Your task to perform on an android device: Set the phone to "Do not disturb". Image 0: 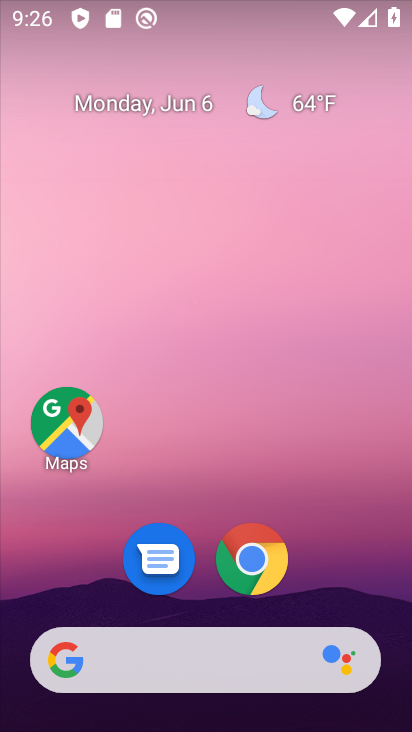
Step 0: drag from (246, 723) to (242, 68)
Your task to perform on an android device: Set the phone to "Do not disturb". Image 1: 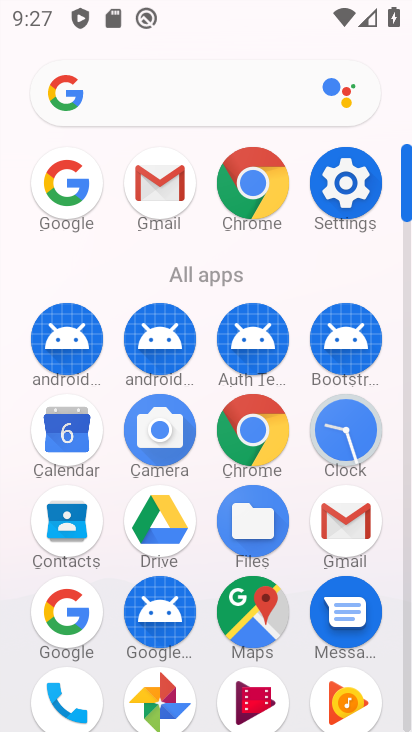
Step 1: click (341, 186)
Your task to perform on an android device: Set the phone to "Do not disturb". Image 2: 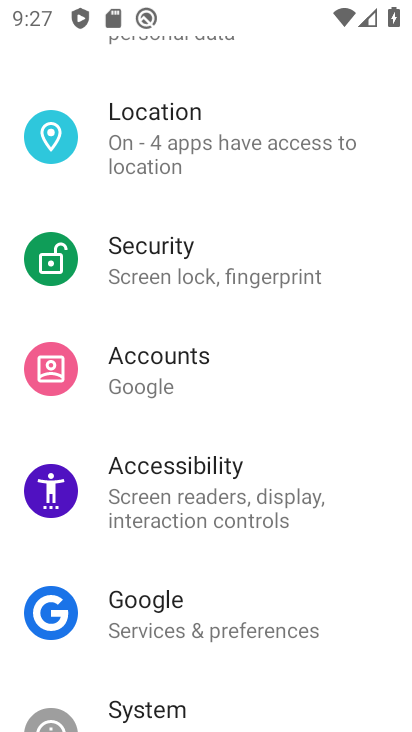
Step 2: drag from (270, 129) to (269, 522)
Your task to perform on an android device: Set the phone to "Do not disturb". Image 3: 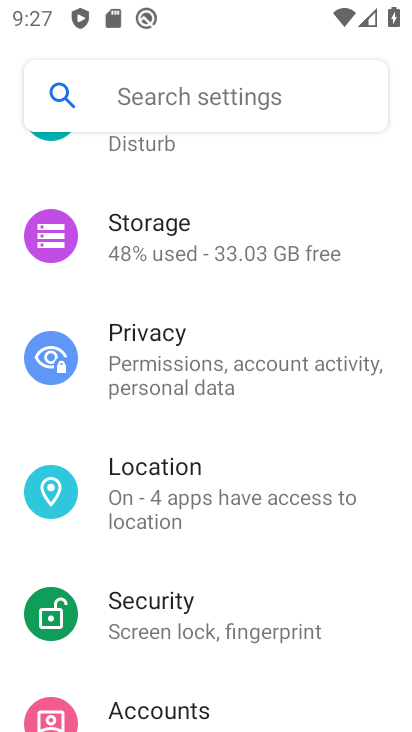
Step 3: drag from (265, 180) to (271, 509)
Your task to perform on an android device: Set the phone to "Do not disturb". Image 4: 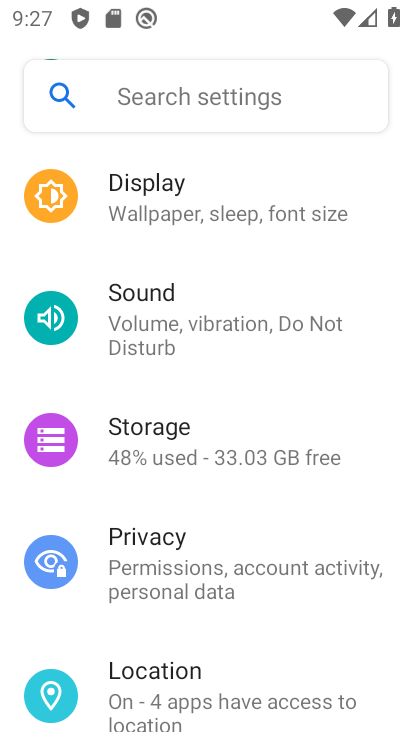
Step 4: click (218, 320)
Your task to perform on an android device: Set the phone to "Do not disturb". Image 5: 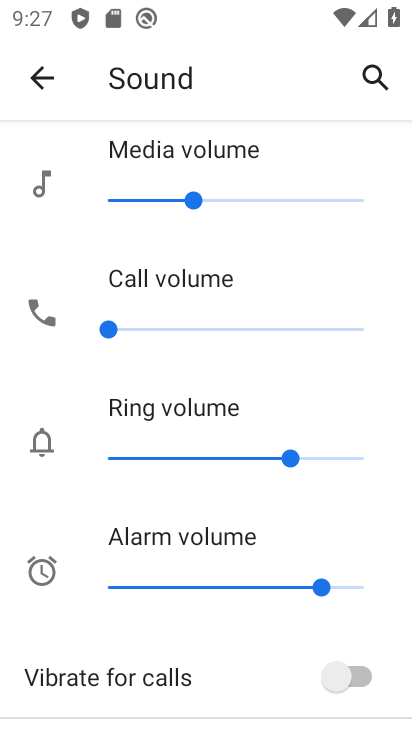
Step 5: drag from (213, 706) to (206, 319)
Your task to perform on an android device: Set the phone to "Do not disturb". Image 6: 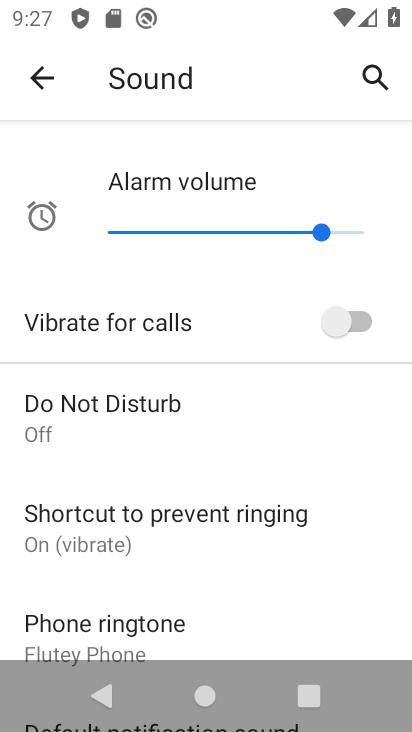
Step 6: click (79, 406)
Your task to perform on an android device: Set the phone to "Do not disturb". Image 7: 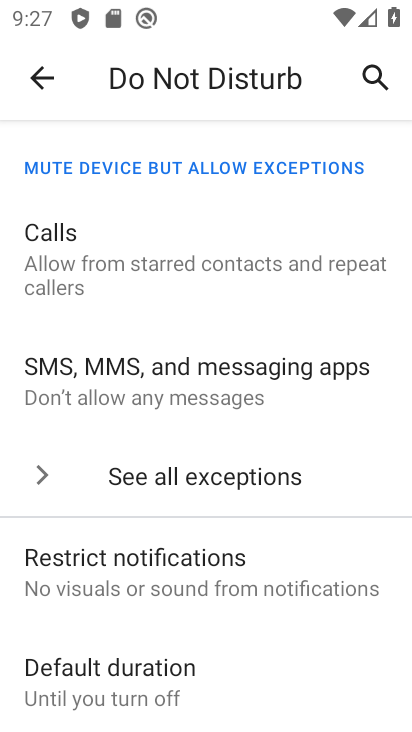
Step 7: drag from (187, 696) to (196, 263)
Your task to perform on an android device: Set the phone to "Do not disturb". Image 8: 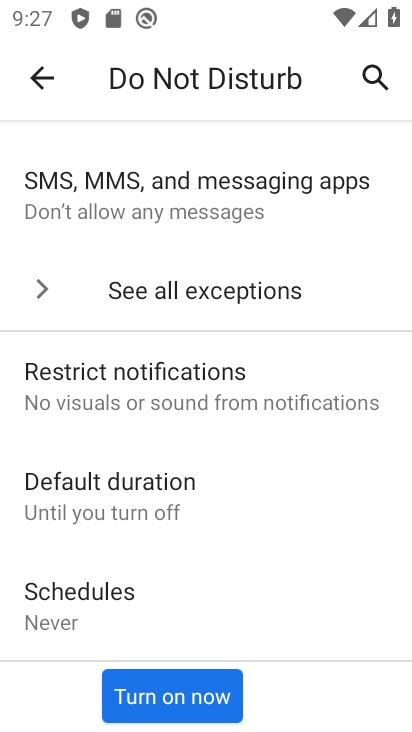
Step 8: click (165, 700)
Your task to perform on an android device: Set the phone to "Do not disturb". Image 9: 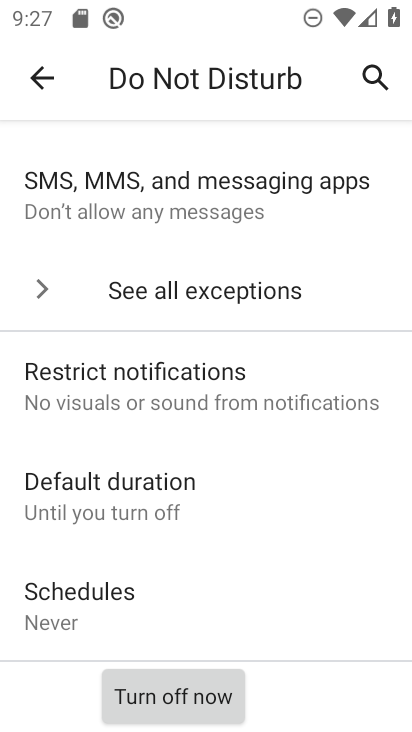
Step 9: task complete